Your task to perform on an android device: Open sound settings Image 0: 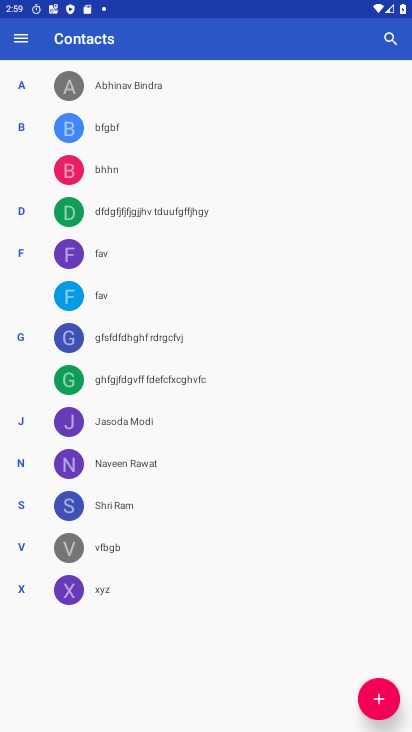
Step 0: press home button
Your task to perform on an android device: Open sound settings Image 1: 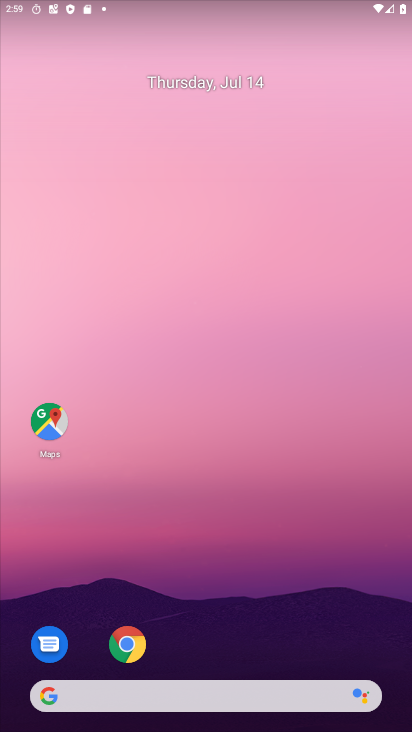
Step 1: drag from (13, 711) to (301, 6)
Your task to perform on an android device: Open sound settings Image 2: 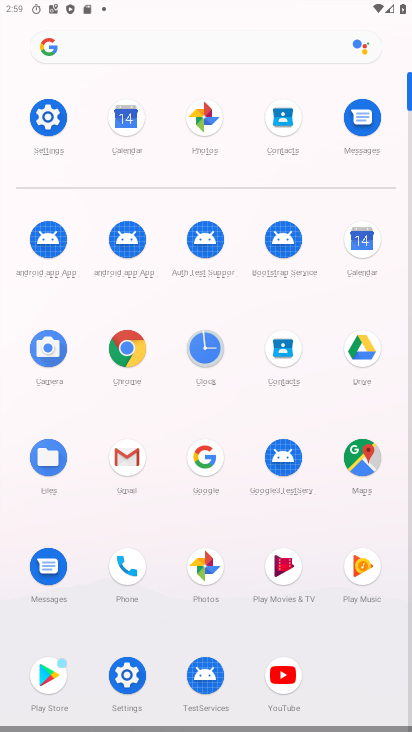
Step 2: click (125, 663)
Your task to perform on an android device: Open sound settings Image 3: 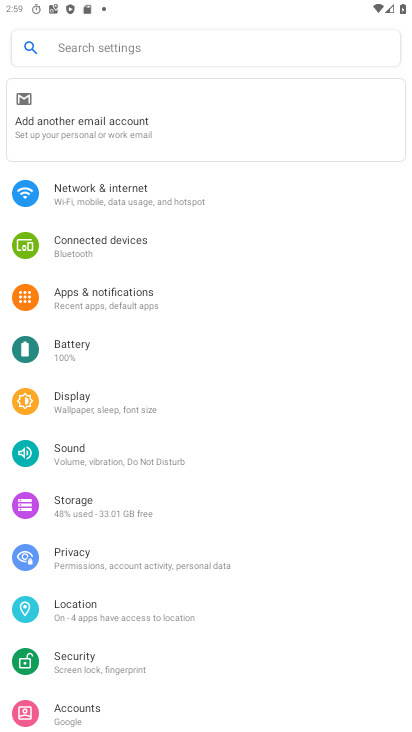
Step 3: click (99, 434)
Your task to perform on an android device: Open sound settings Image 4: 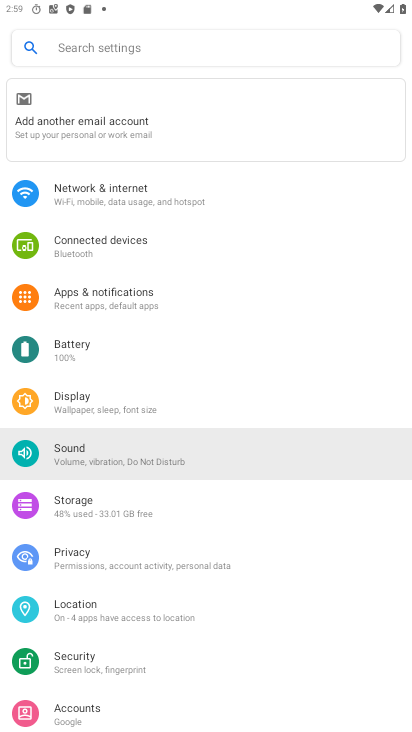
Step 4: click (88, 448)
Your task to perform on an android device: Open sound settings Image 5: 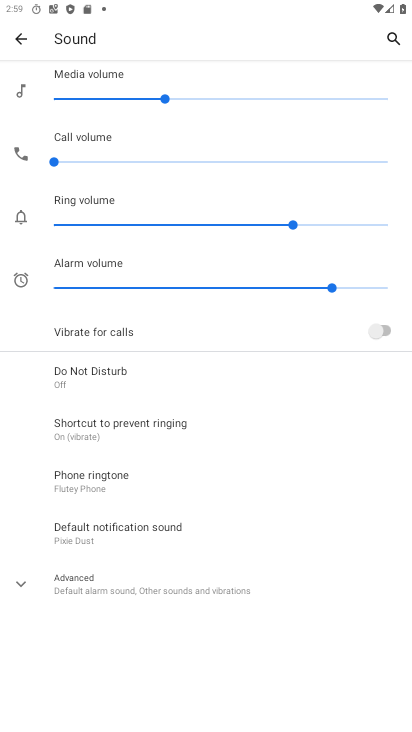
Step 5: task complete